Your task to perform on an android device: Show me popular games on the Play Store Image 0: 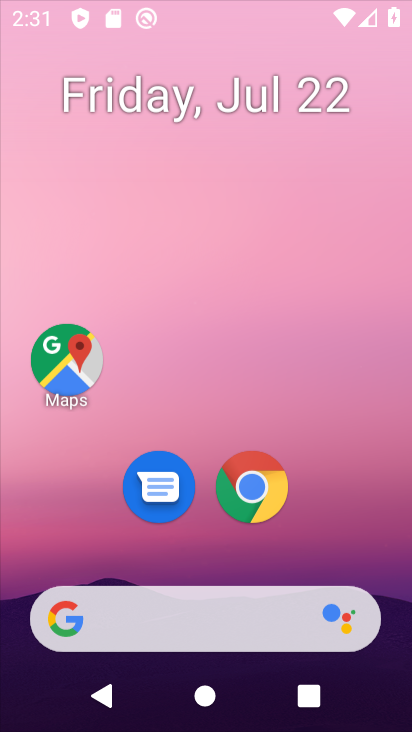
Step 0: drag from (180, 496) to (247, 39)
Your task to perform on an android device: Show me popular games on the Play Store Image 1: 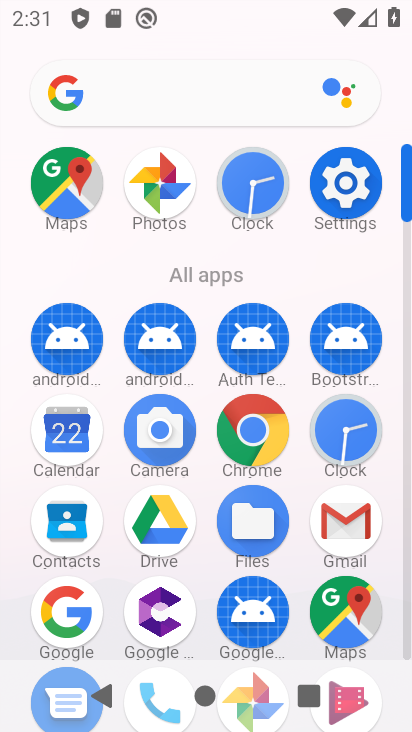
Step 1: drag from (200, 567) to (264, 110)
Your task to perform on an android device: Show me popular games on the Play Store Image 2: 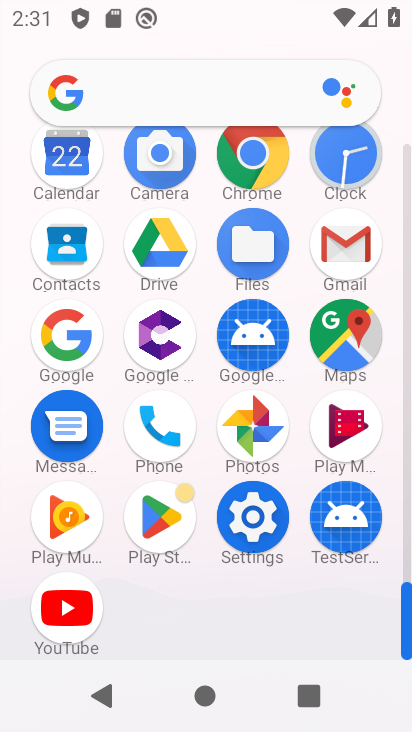
Step 2: click (159, 518)
Your task to perform on an android device: Show me popular games on the Play Store Image 3: 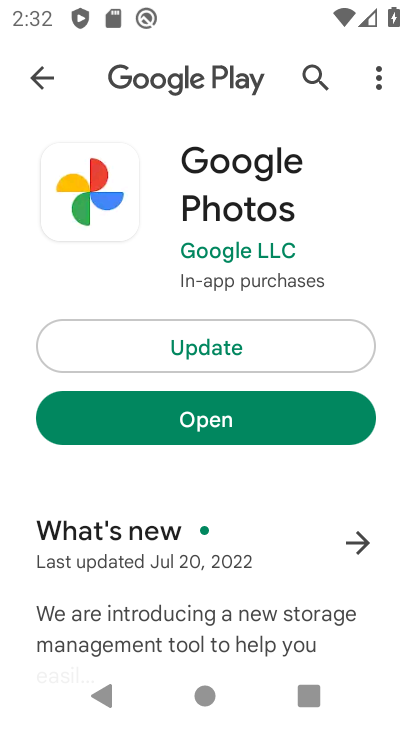
Step 3: click (48, 82)
Your task to perform on an android device: Show me popular games on the Play Store Image 4: 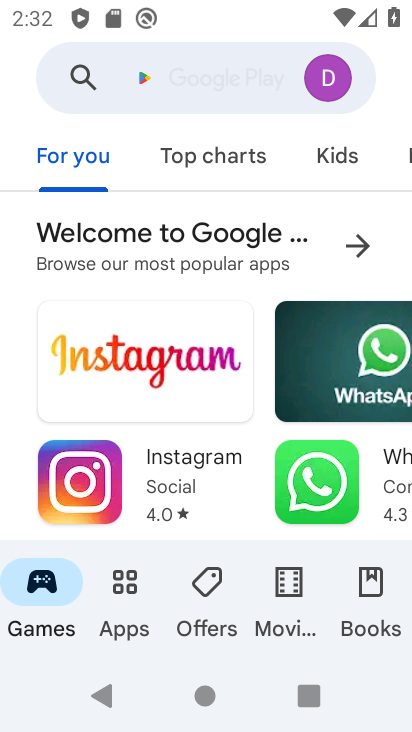
Step 4: drag from (159, 488) to (216, 29)
Your task to perform on an android device: Show me popular games on the Play Store Image 5: 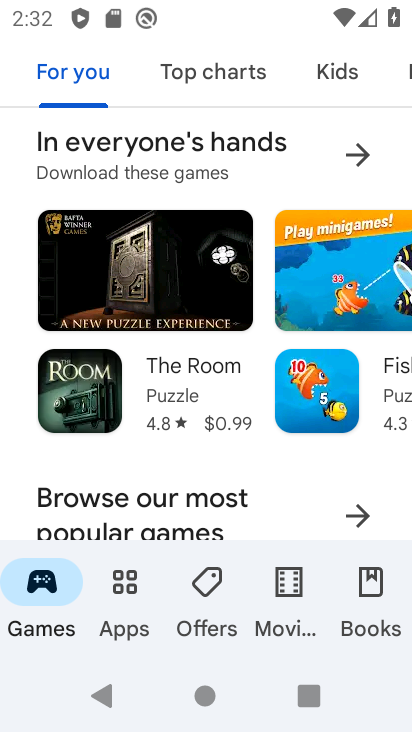
Step 5: drag from (167, 457) to (224, 81)
Your task to perform on an android device: Show me popular games on the Play Store Image 6: 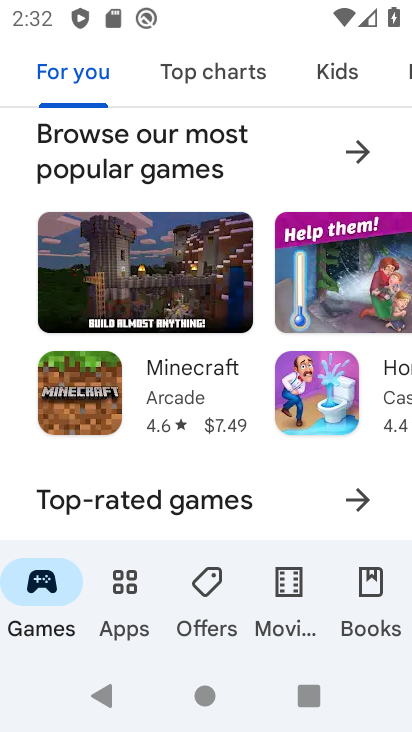
Step 6: drag from (215, 349) to (212, 472)
Your task to perform on an android device: Show me popular games on the Play Store Image 7: 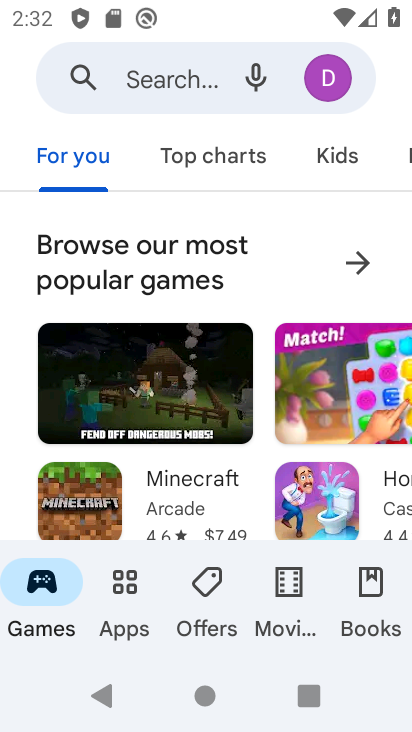
Step 7: click (367, 269)
Your task to perform on an android device: Show me popular games on the Play Store Image 8: 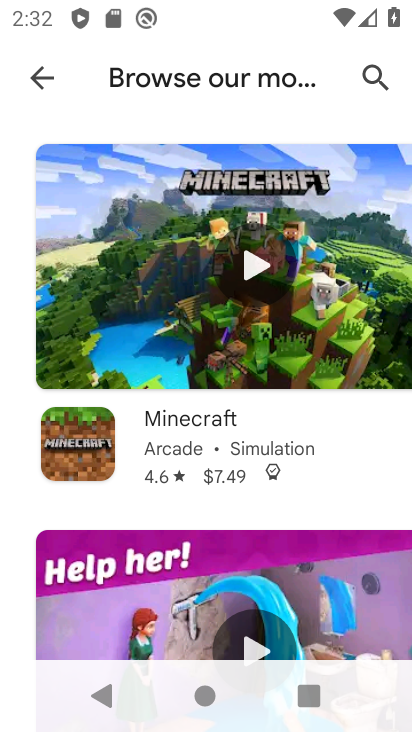
Step 8: task complete